Your task to perform on an android device: Search for "apple airpods pro" on newegg, select the first entry, and add it to the cart. Image 0: 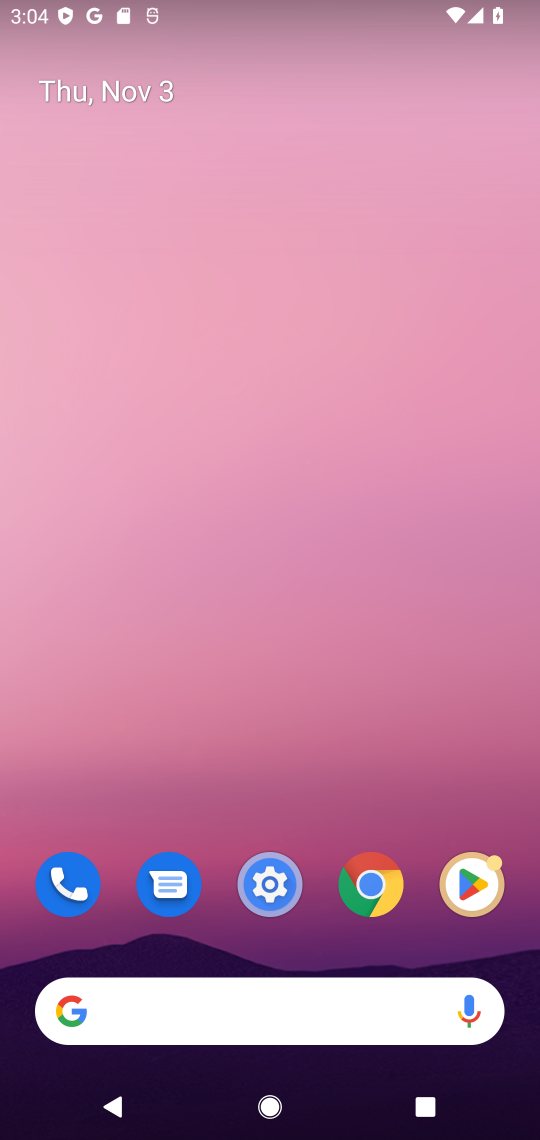
Step 0: press home button
Your task to perform on an android device: Search for "apple airpods pro" on newegg, select the first entry, and add it to the cart. Image 1: 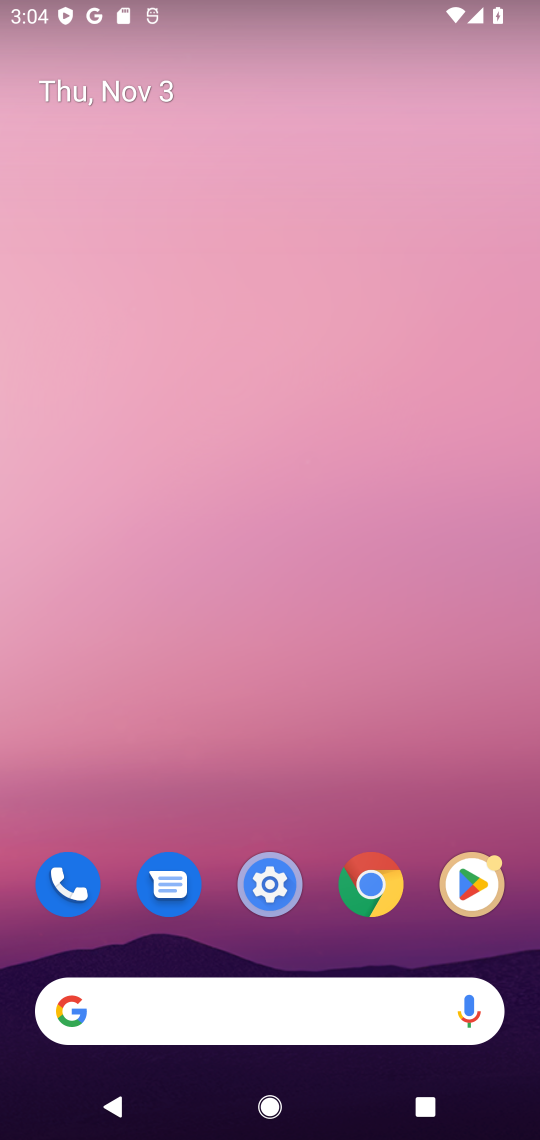
Step 1: click (109, 1002)
Your task to perform on an android device: Search for "apple airpods pro" on newegg, select the first entry, and add it to the cart. Image 2: 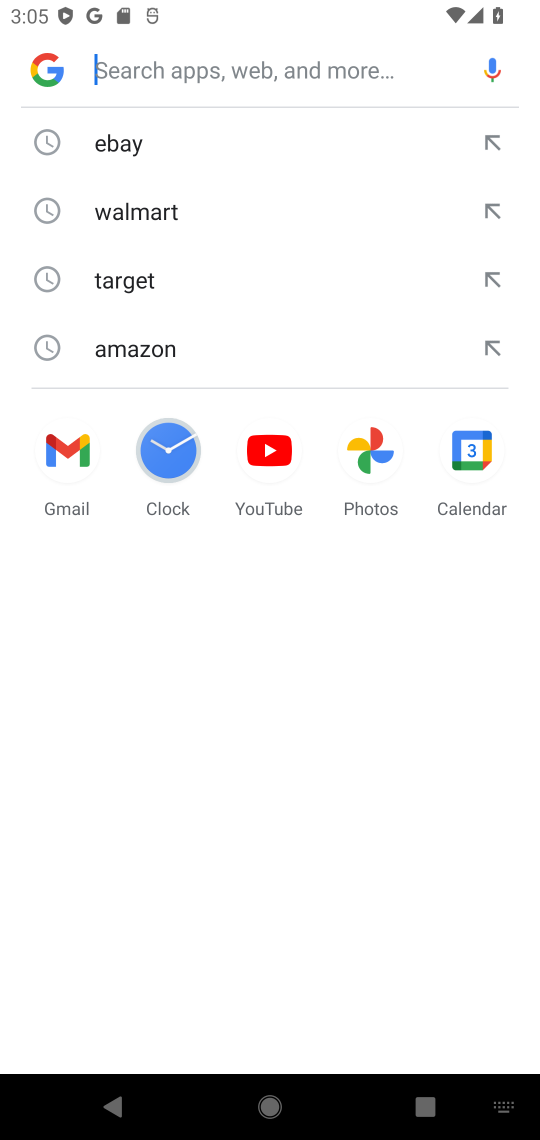
Step 2: type "newegg"
Your task to perform on an android device: Search for "apple airpods pro" on newegg, select the first entry, and add it to the cart. Image 3: 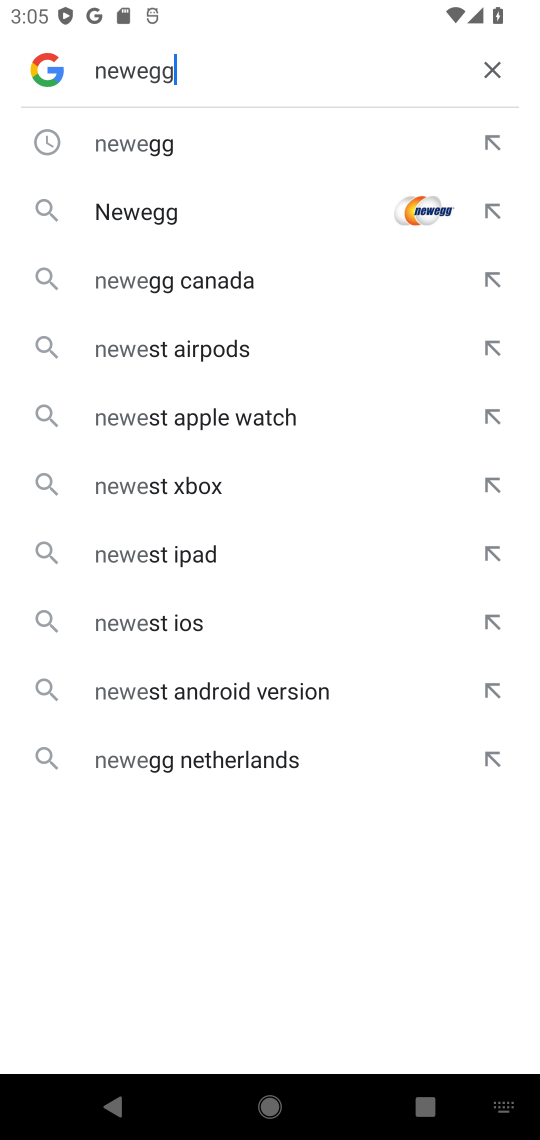
Step 3: press enter
Your task to perform on an android device: Search for "apple airpods pro" on newegg, select the first entry, and add it to the cart. Image 4: 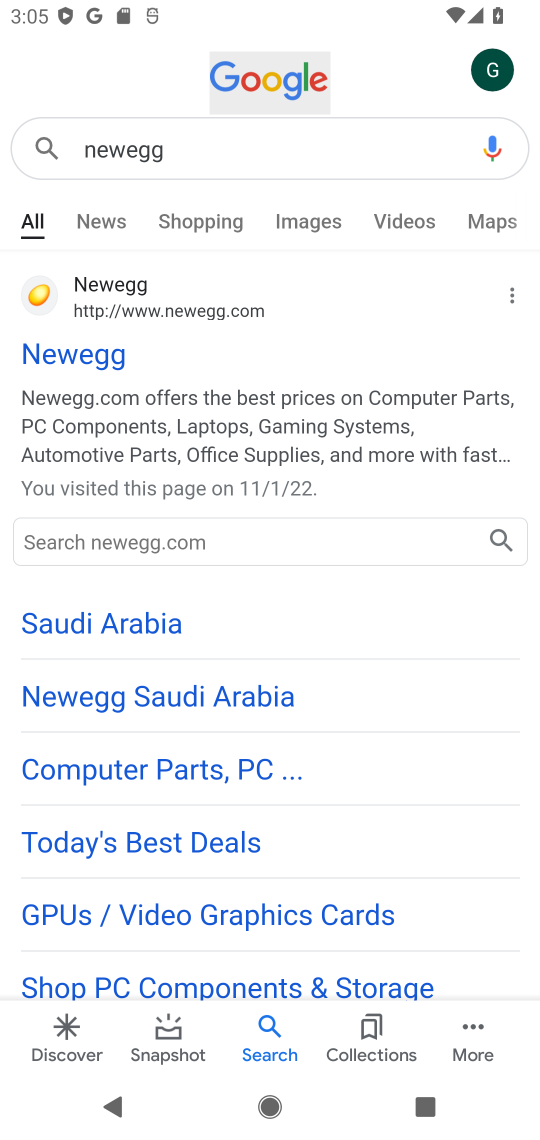
Step 4: click (76, 355)
Your task to perform on an android device: Search for "apple airpods pro" on newegg, select the first entry, and add it to the cart. Image 5: 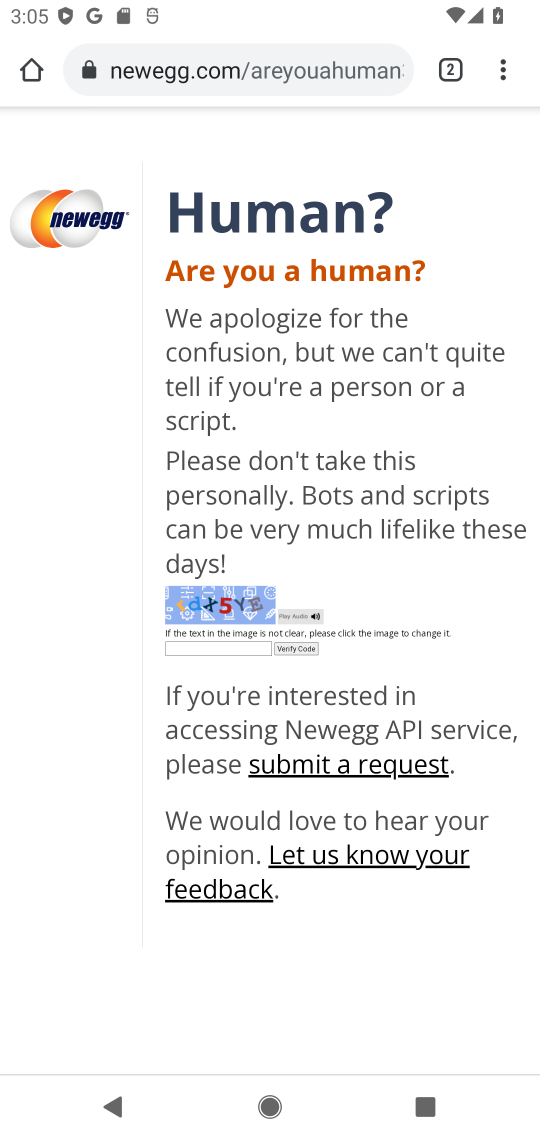
Step 5: click (194, 646)
Your task to perform on an android device: Search for "apple airpods pro" on newegg, select the first entry, and add it to the cart. Image 6: 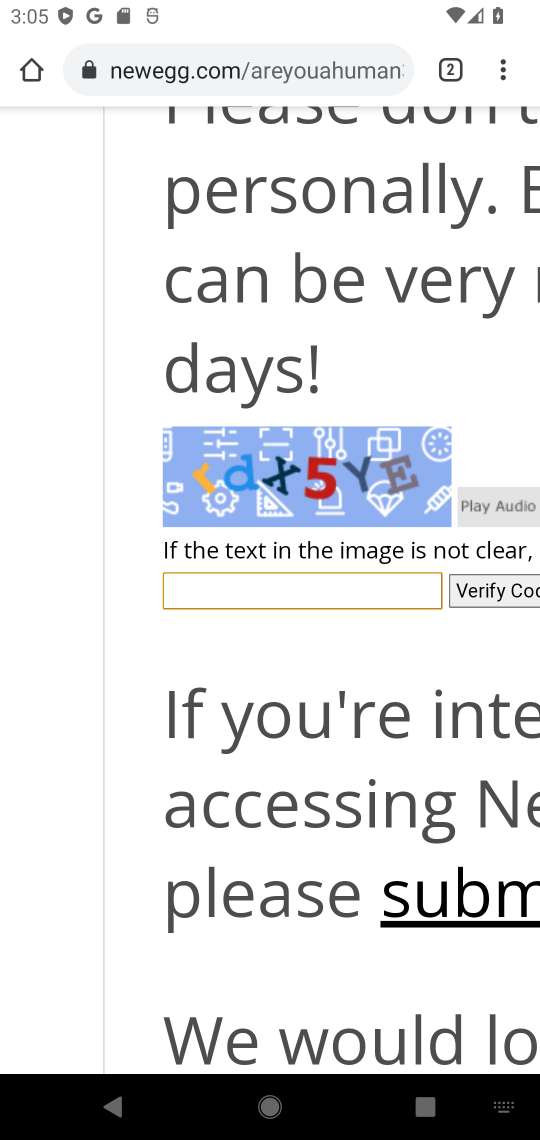
Step 6: type "rdX5YE"
Your task to perform on an android device: Search for "apple airpods pro" on newegg, select the first entry, and add it to the cart. Image 7: 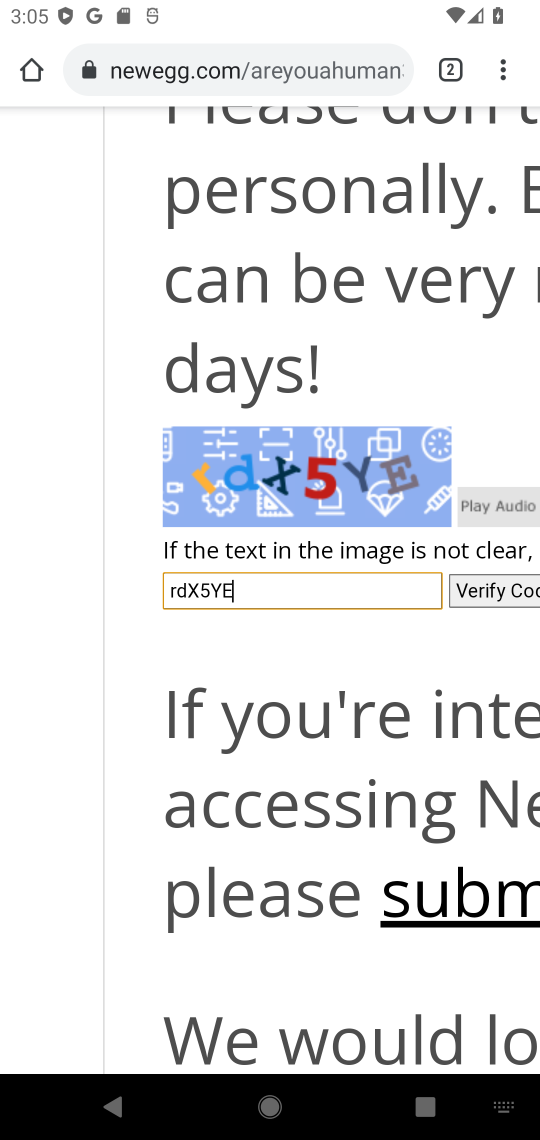
Step 7: press enter
Your task to perform on an android device: Search for "apple airpods pro" on newegg, select the first entry, and add it to the cart. Image 8: 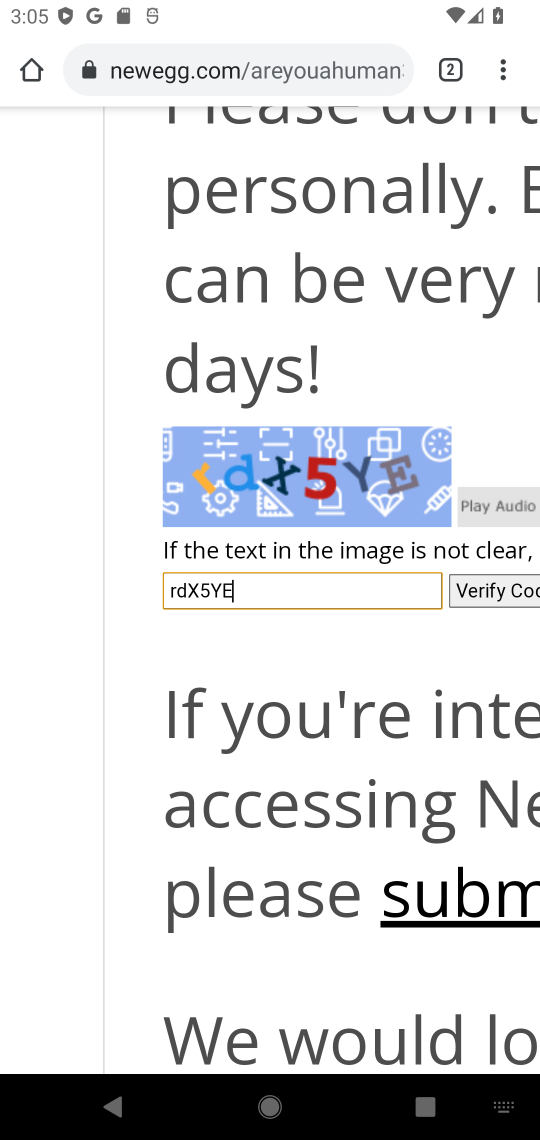
Step 8: click (516, 591)
Your task to perform on an android device: Search for "apple airpods pro" on newegg, select the first entry, and add it to the cart. Image 9: 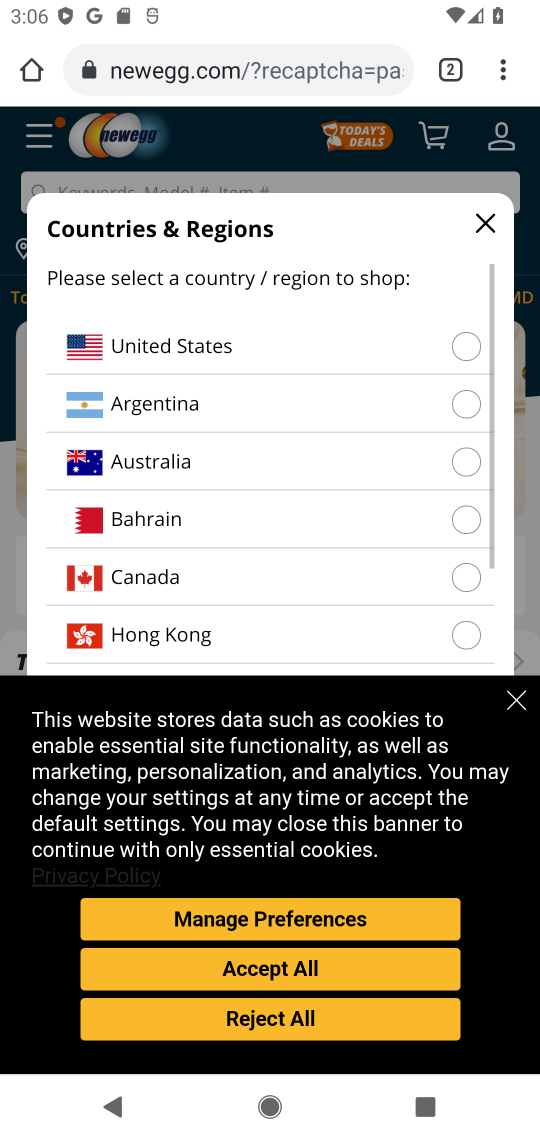
Step 9: click (481, 211)
Your task to perform on an android device: Search for "apple airpods pro" on newegg, select the first entry, and add it to the cart. Image 10: 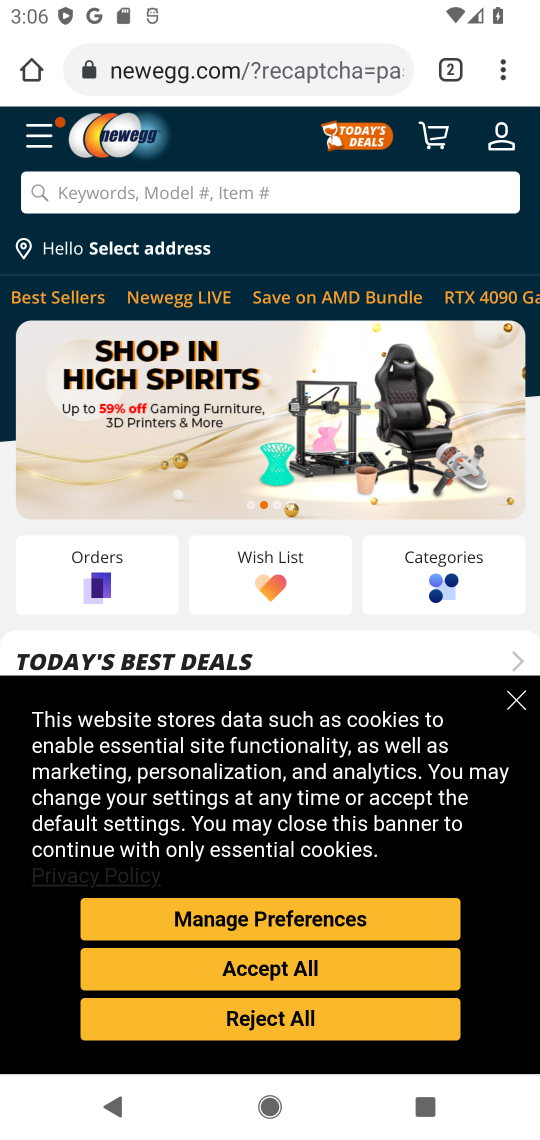
Step 10: click (507, 709)
Your task to perform on an android device: Search for "apple airpods pro" on newegg, select the first entry, and add it to the cart. Image 11: 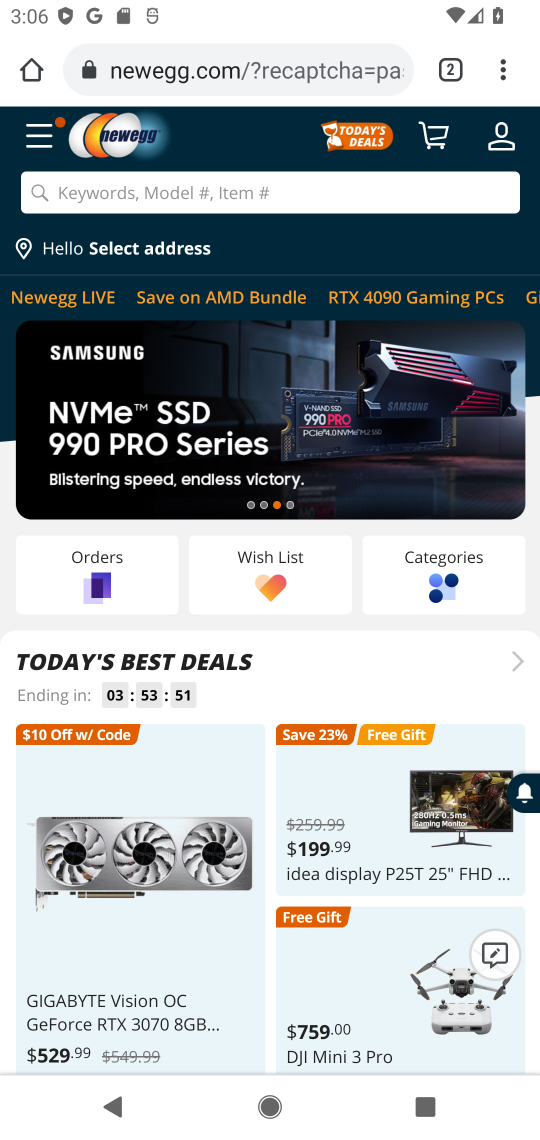
Step 11: click (153, 183)
Your task to perform on an android device: Search for "apple airpods pro" on newegg, select the first entry, and add it to the cart. Image 12: 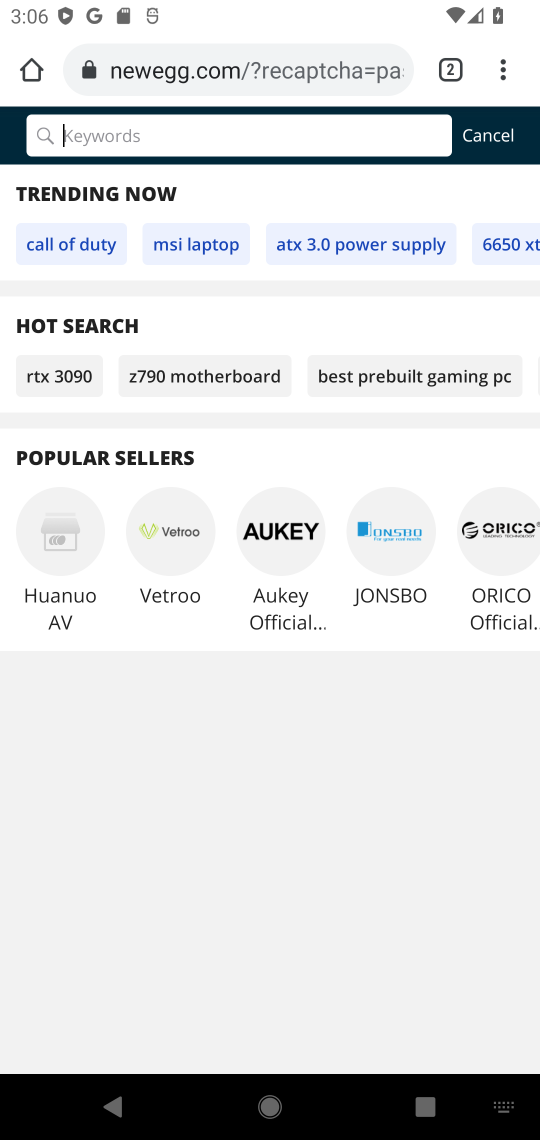
Step 12: type "apple airpods pro"
Your task to perform on an android device: Search for "apple airpods pro" on newegg, select the first entry, and add it to the cart. Image 13: 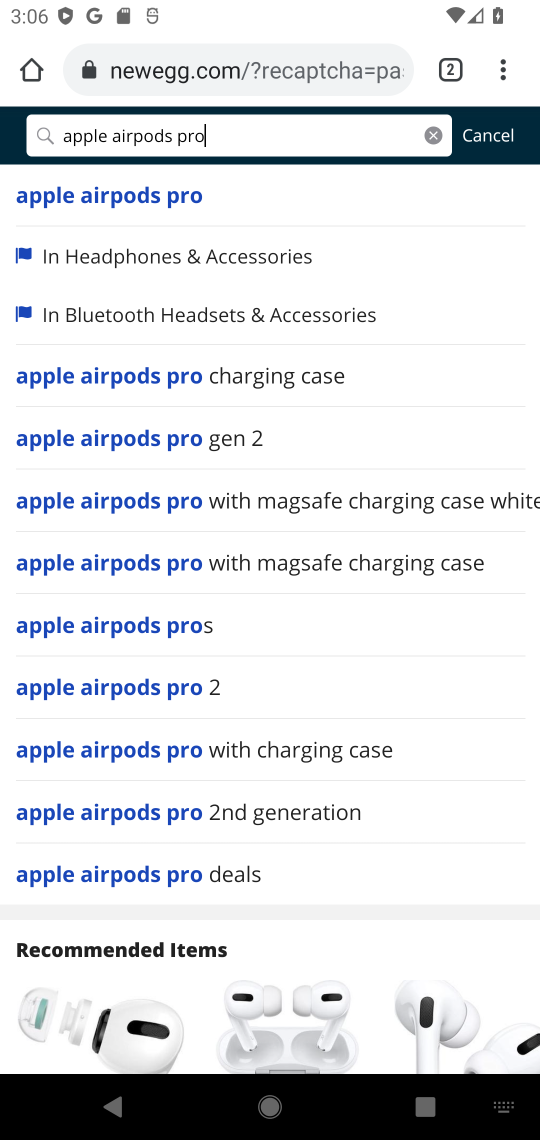
Step 13: click (143, 196)
Your task to perform on an android device: Search for "apple airpods pro" on newegg, select the first entry, and add it to the cart. Image 14: 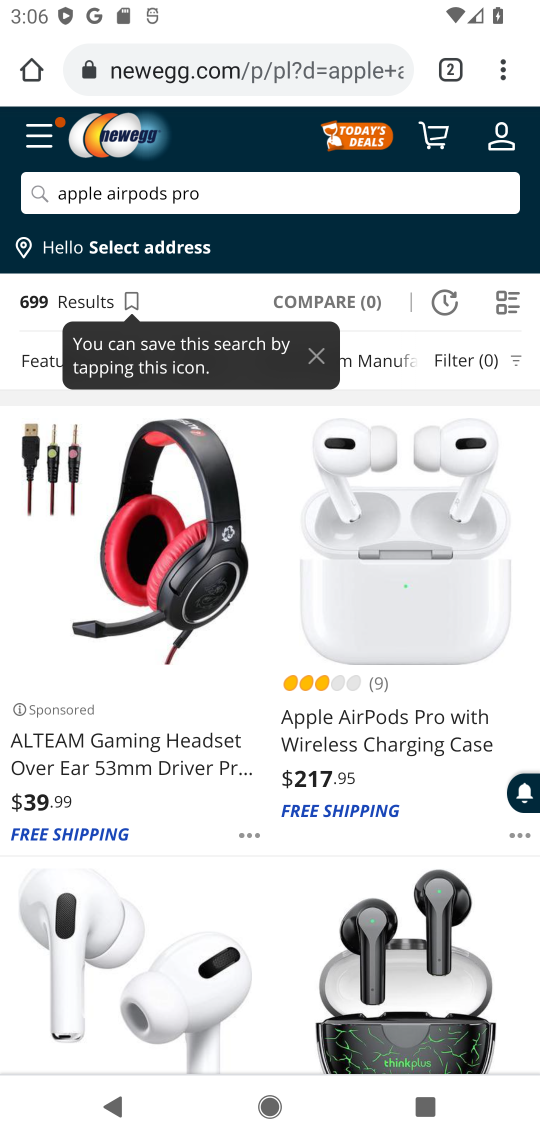
Step 14: drag from (366, 877) to (376, 580)
Your task to perform on an android device: Search for "apple airpods pro" on newegg, select the first entry, and add it to the cart. Image 15: 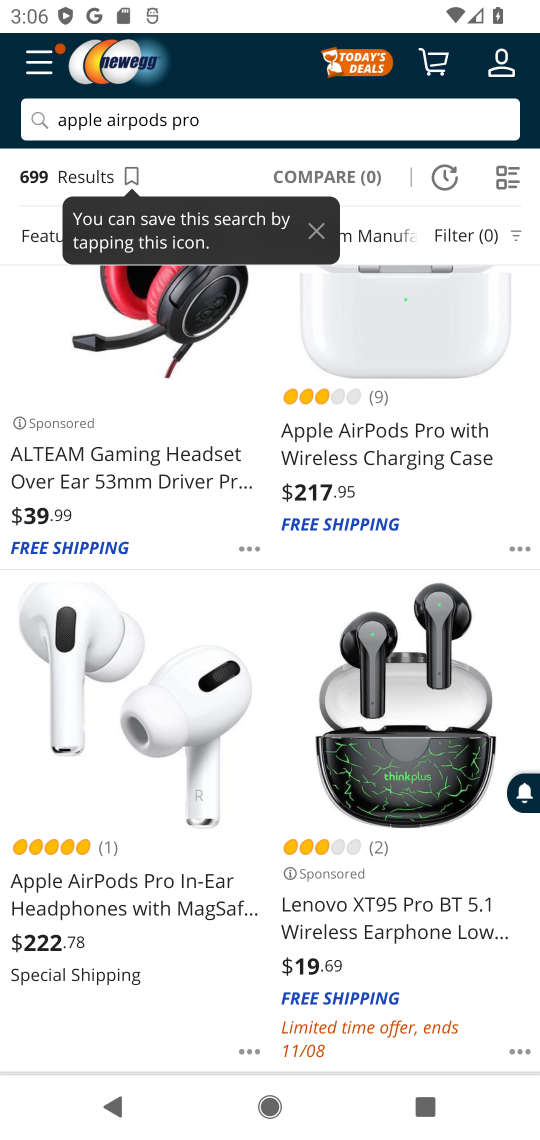
Step 15: click (392, 439)
Your task to perform on an android device: Search for "apple airpods pro" on newegg, select the first entry, and add it to the cart. Image 16: 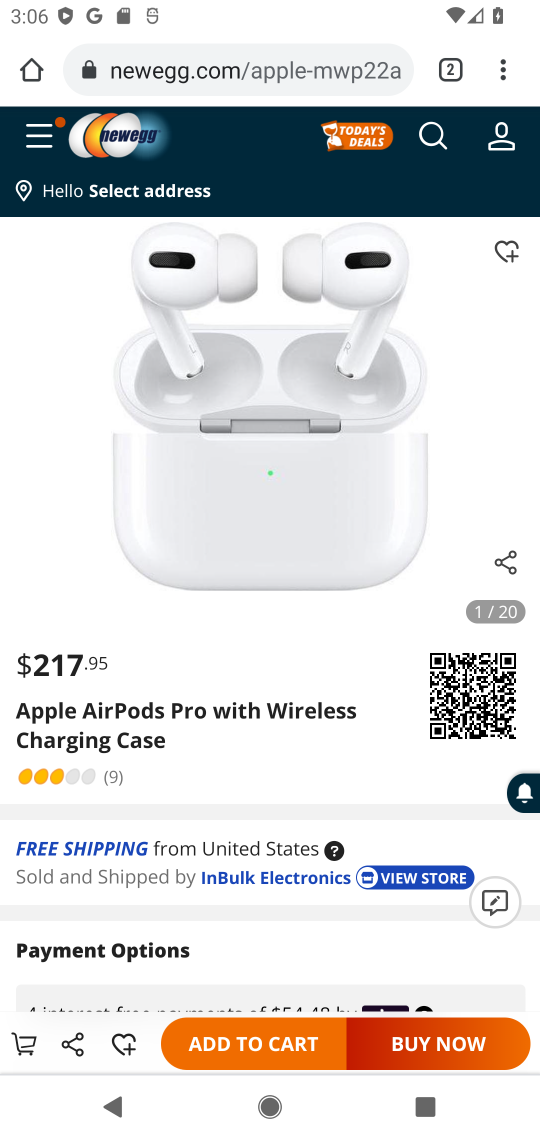
Step 16: click (279, 1046)
Your task to perform on an android device: Search for "apple airpods pro" on newegg, select the first entry, and add it to the cart. Image 17: 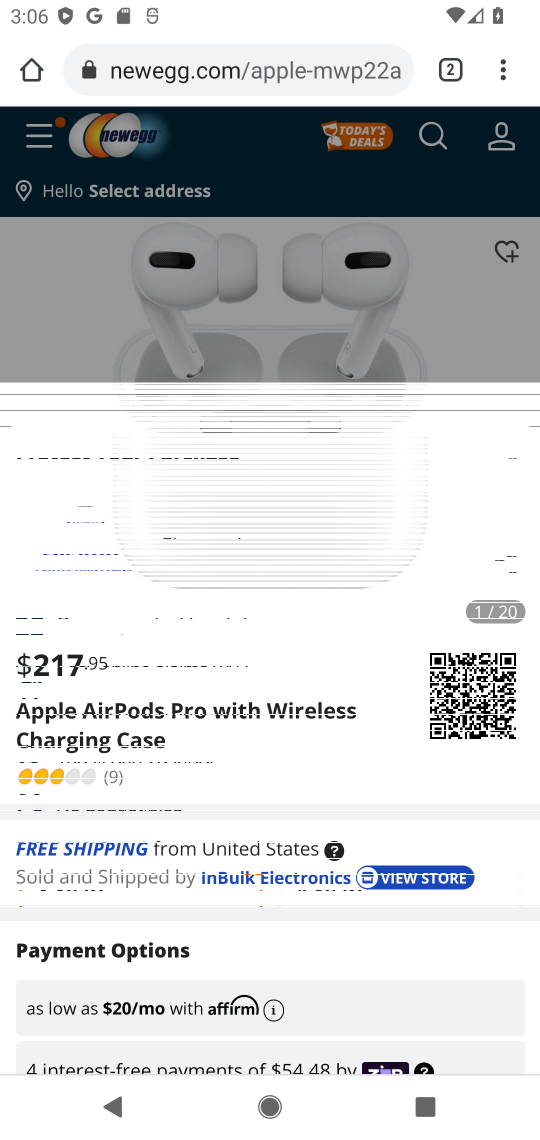
Step 17: drag from (230, 884) to (232, 476)
Your task to perform on an android device: Search for "apple airpods pro" on newegg, select the first entry, and add it to the cart. Image 18: 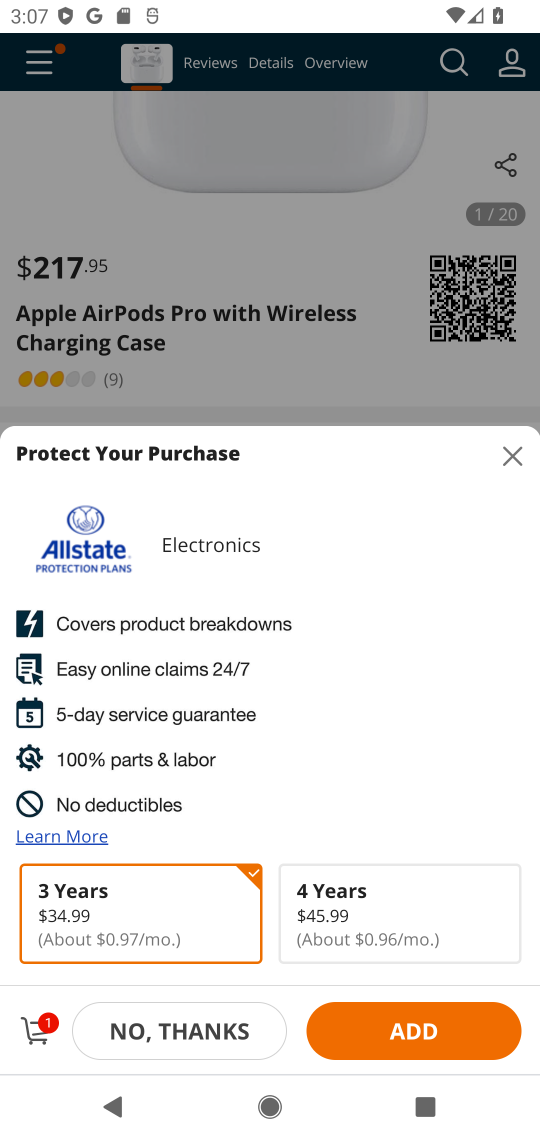
Step 18: click (203, 1026)
Your task to perform on an android device: Search for "apple airpods pro" on newegg, select the first entry, and add it to the cart. Image 19: 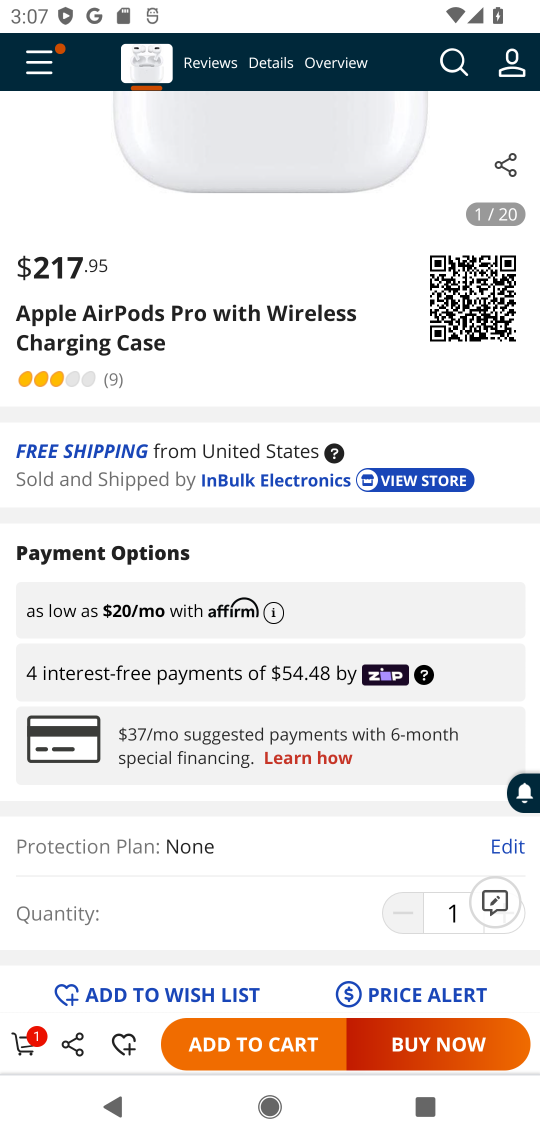
Step 19: click (247, 1041)
Your task to perform on an android device: Search for "apple airpods pro" on newegg, select the first entry, and add it to the cart. Image 20: 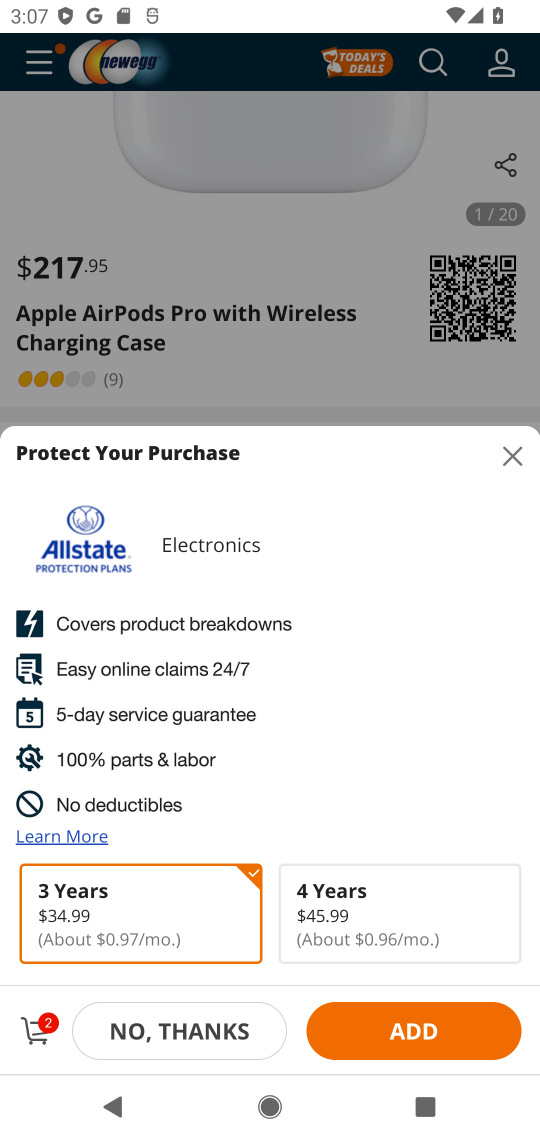
Step 20: click (168, 1033)
Your task to perform on an android device: Search for "apple airpods pro" on newegg, select the first entry, and add it to the cart. Image 21: 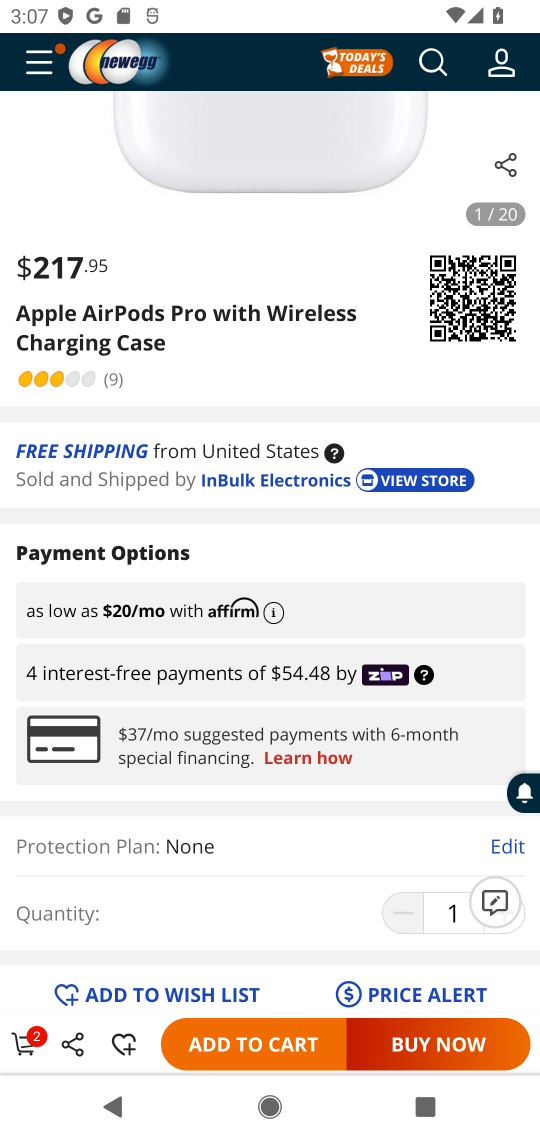
Step 21: task complete